Your task to perform on an android device: toggle improve location accuracy Image 0: 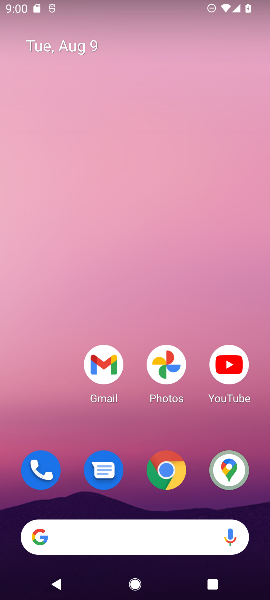
Step 0: drag from (152, 546) to (149, 36)
Your task to perform on an android device: toggle improve location accuracy Image 1: 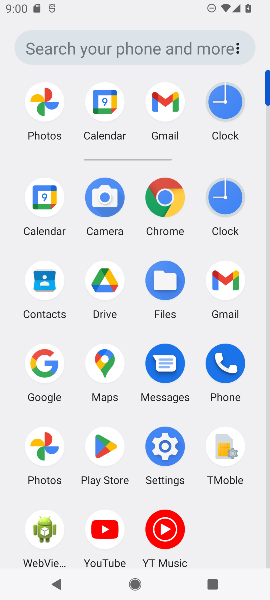
Step 1: click (165, 446)
Your task to perform on an android device: toggle improve location accuracy Image 2: 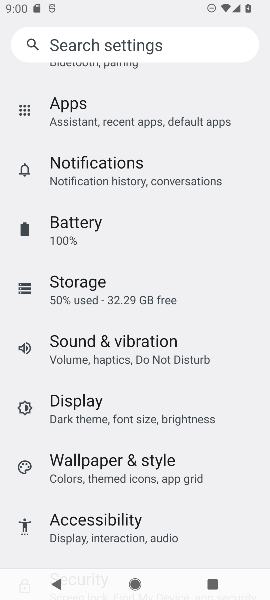
Step 2: drag from (150, 98) to (144, 344)
Your task to perform on an android device: toggle improve location accuracy Image 3: 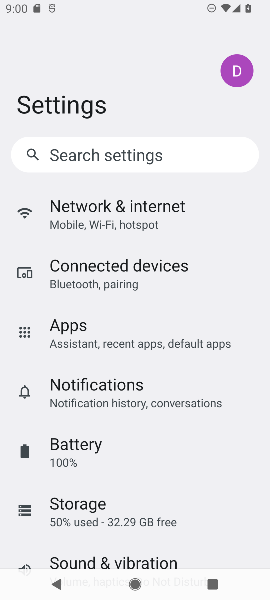
Step 3: drag from (145, 449) to (181, 349)
Your task to perform on an android device: toggle improve location accuracy Image 4: 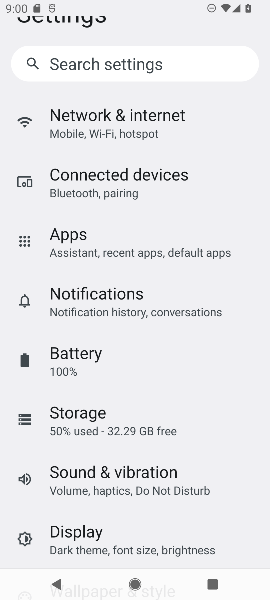
Step 4: drag from (118, 455) to (172, 368)
Your task to perform on an android device: toggle improve location accuracy Image 5: 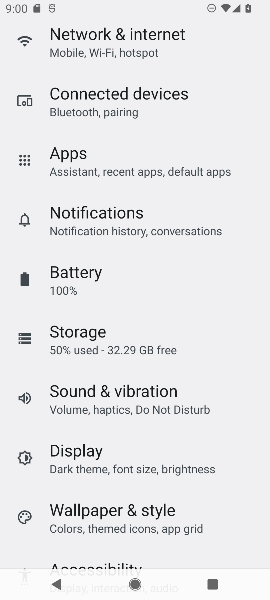
Step 5: drag from (134, 424) to (167, 344)
Your task to perform on an android device: toggle improve location accuracy Image 6: 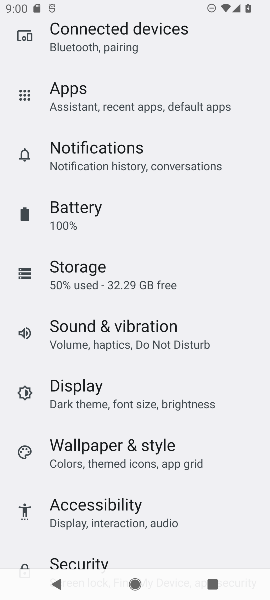
Step 6: drag from (156, 378) to (174, 349)
Your task to perform on an android device: toggle improve location accuracy Image 7: 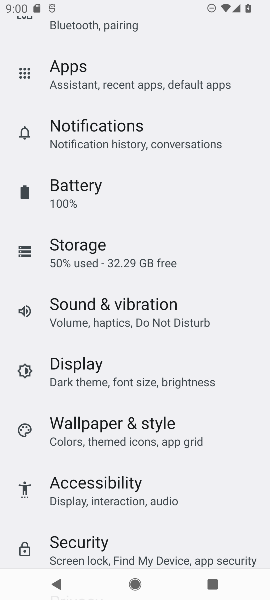
Step 7: drag from (99, 515) to (158, 409)
Your task to perform on an android device: toggle improve location accuracy Image 8: 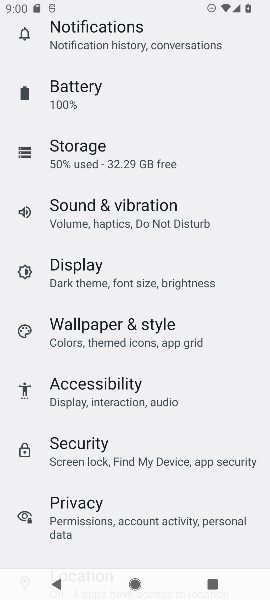
Step 8: drag from (122, 479) to (165, 395)
Your task to perform on an android device: toggle improve location accuracy Image 9: 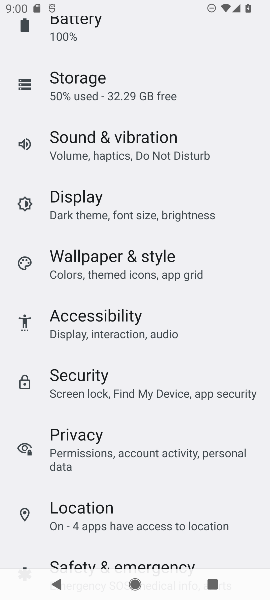
Step 9: click (134, 520)
Your task to perform on an android device: toggle improve location accuracy Image 10: 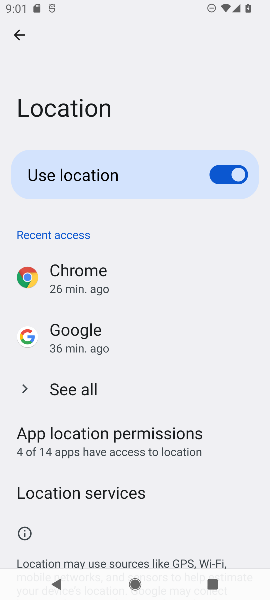
Step 10: click (107, 494)
Your task to perform on an android device: toggle improve location accuracy Image 11: 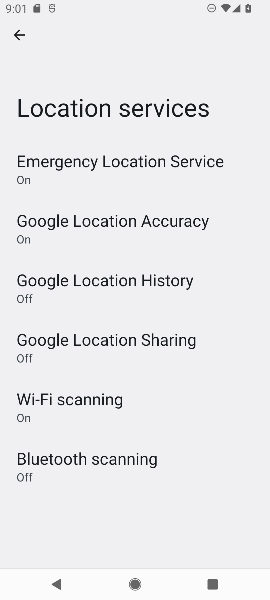
Step 11: click (118, 220)
Your task to perform on an android device: toggle improve location accuracy Image 12: 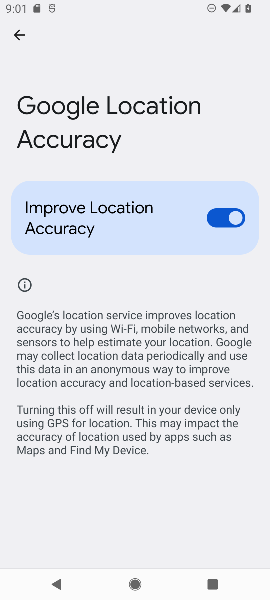
Step 12: click (212, 219)
Your task to perform on an android device: toggle improve location accuracy Image 13: 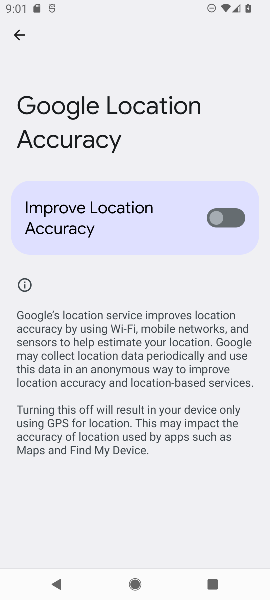
Step 13: task complete